Your task to perform on an android device: refresh tabs in the chrome app Image 0: 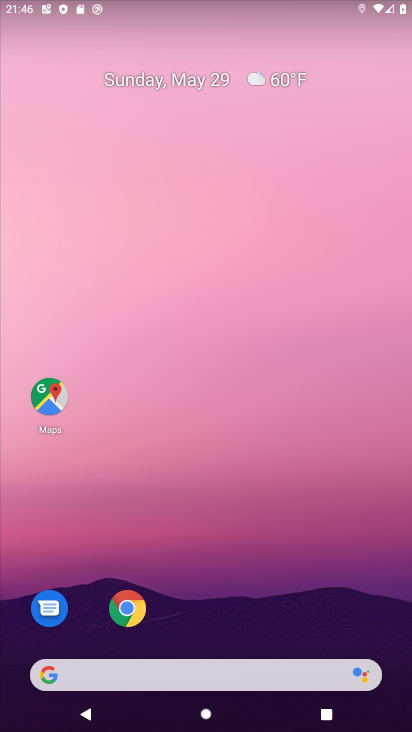
Step 0: drag from (378, 633) to (395, 126)
Your task to perform on an android device: refresh tabs in the chrome app Image 1: 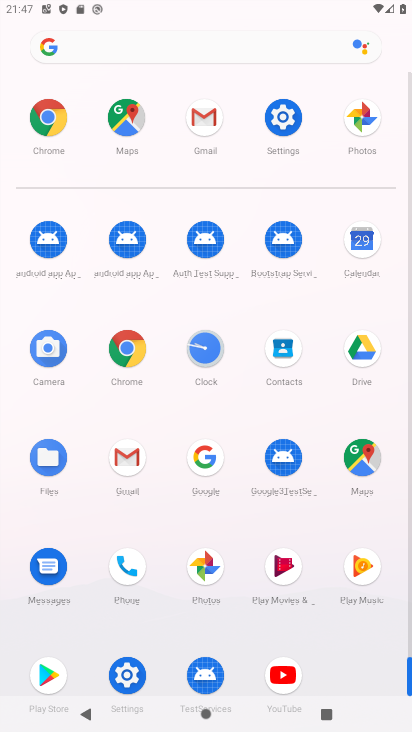
Step 1: click (140, 355)
Your task to perform on an android device: refresh tabs in the chrome app Image 2: 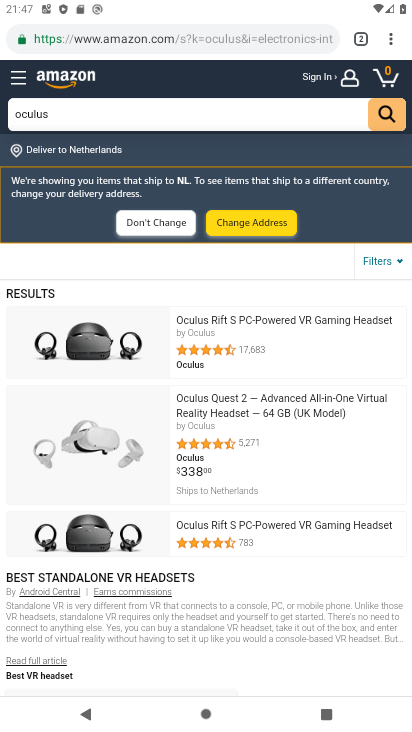
Step 2: click (393, 39)
Your task to perform on an android device: refresh tabs in the chrome app Image 3: 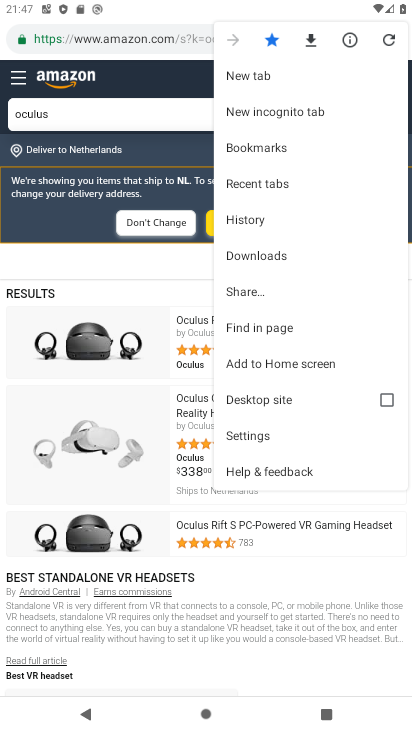
Step 3: click (385, 42)
Your task to perform on an android device: refresh tabs in the chrome app Image 4: 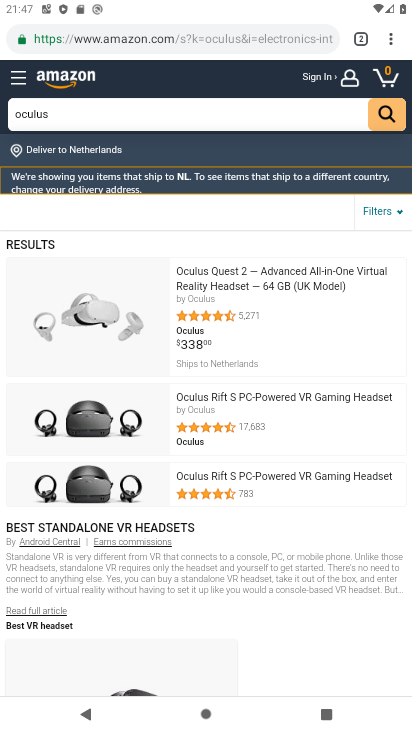
Step 4: task complete